Your task to perform on an android device: toggle airplane mode Image 0: 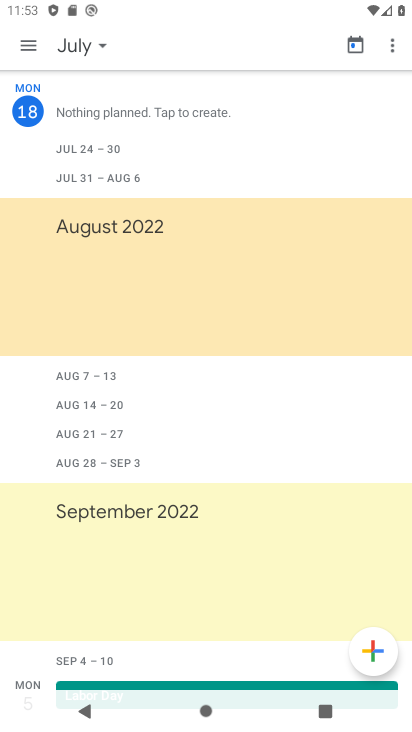
Step 0: press home button
Your task to perform on an android device: toggle airplane mode Image 1: 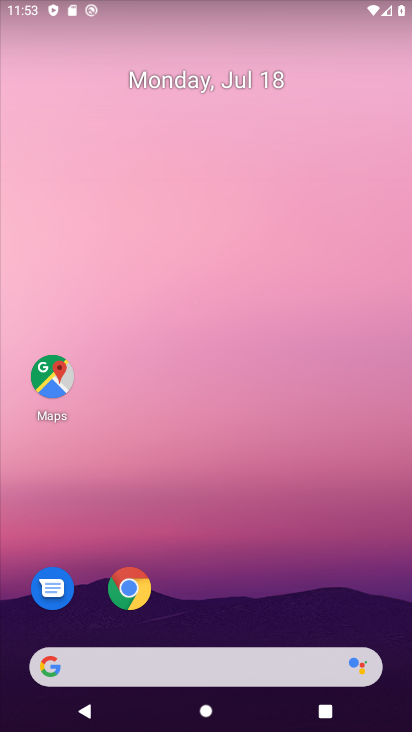
Step 1: drag from (192, 633) to (310, 141)
Your task to perform on an android device: toggle airplane mode Image 2: 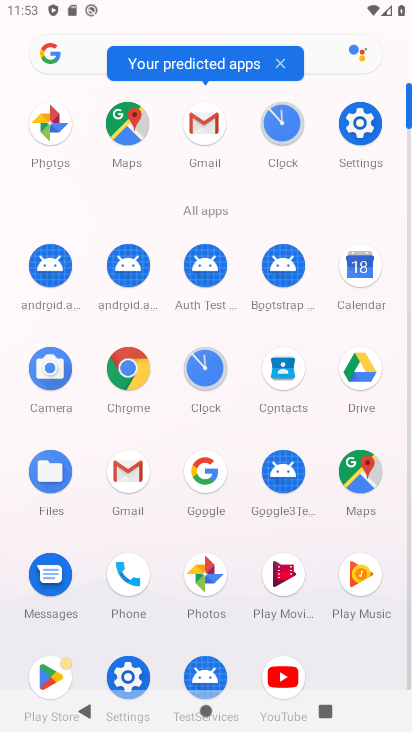
Step 2: click (134, 683)
Your task to perform on an android device: toggle airplane mode Image 3: 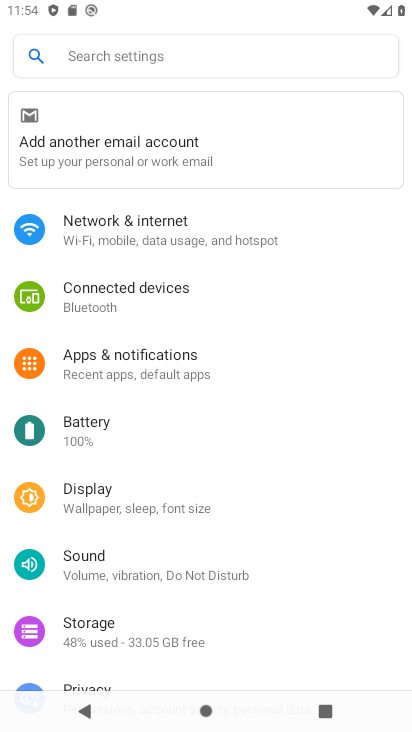
Step 3: click (209, 245)
Your task to perform on an android device: toggle airplane mode Image 4: 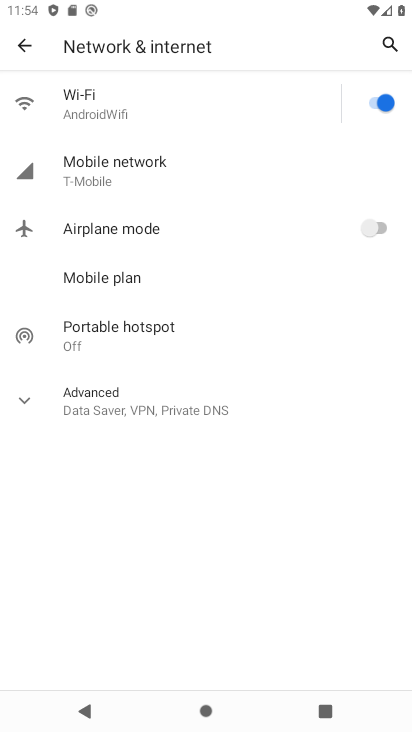
Step 4: click (388, 227)
Your task to perform on an android device: toggle airplane mode Image 5: 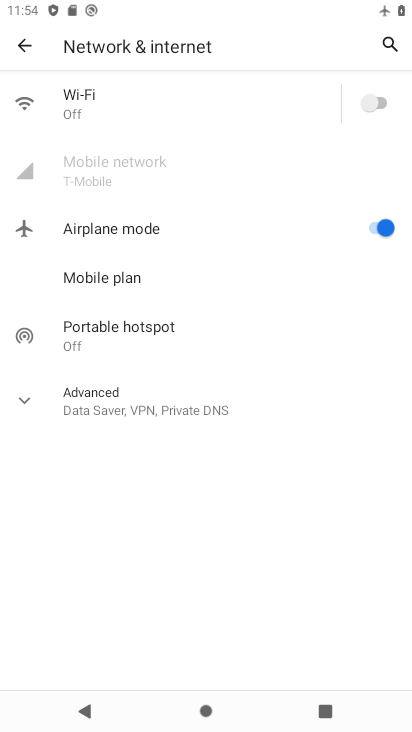
Step 5: task complete